Your task to perform on an android device: Go to Google Image 0: 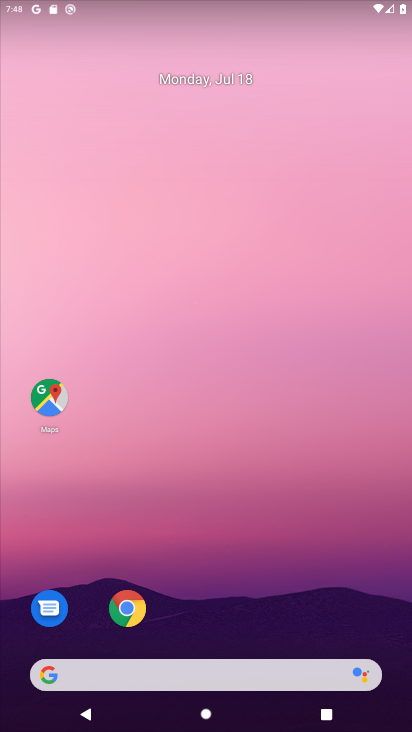
Step 0: drag from (212, 666) to (299, 678)
Your task to perform on an android device: Go to Google Image 1: 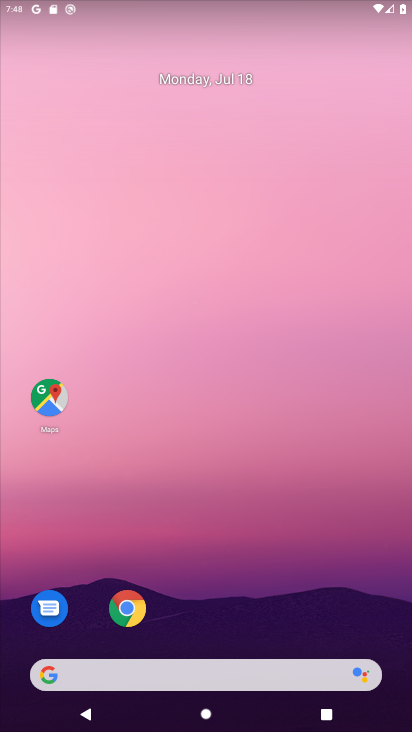
Step 1: drag from (222, 637) to (354, 24)
Your task to perform on an android device: Go to Google Image 2: 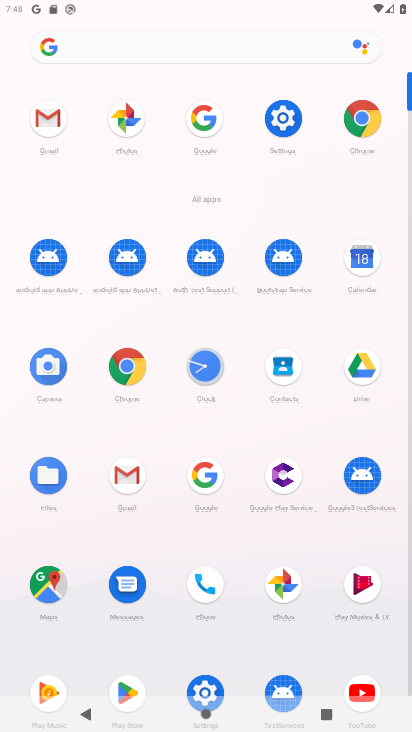
Step 2: click (202, 474)
Your task to perform on an android device: Go to Google Image 3: 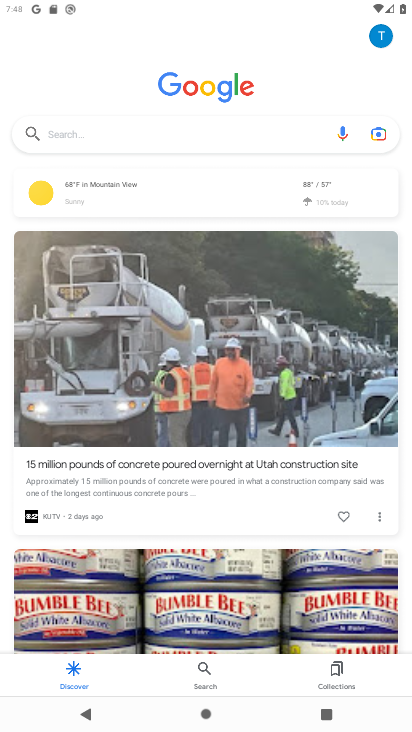
Step 3: task complete